Your task to perform on an android device: open app "Grab" (install if not already installed) and enter user name: "interspersion@gmail.com" and password: "aristocrats" Image 0: 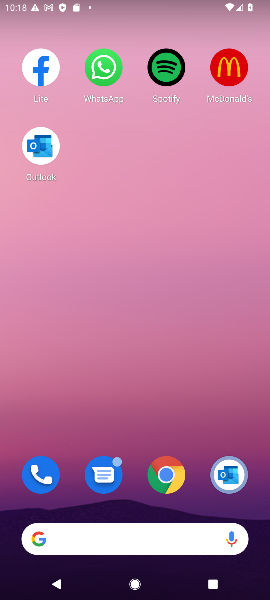
Step 0: drag from (153, 515) to (139, 27)
Your task to perform on an android device: open app "Grab" (install if not already installed) and enter user name: "interspersion@gmail.com" and password: "aristocrats" Image 1: 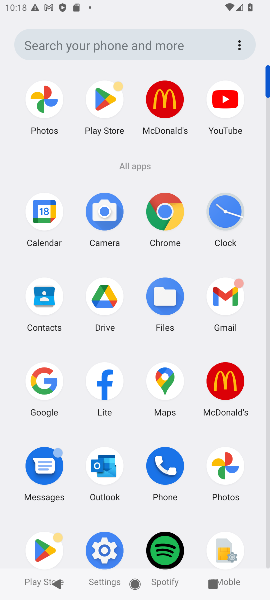
Step 1: click (54, 549)
Your task to perform on an android device: open app "Grab" (install if not already installed) and enter user name: "interspersion@gmail.com" and password: "aristocrats" Image 2: 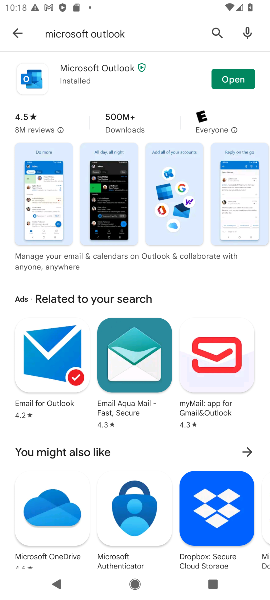
Step 2: click (10, 26)
Your task to perform on an android device: open app "Grab" (install if not already installed) and enter user name: "interspersion@gmail.com" and password: "aristocrats" Image 3: 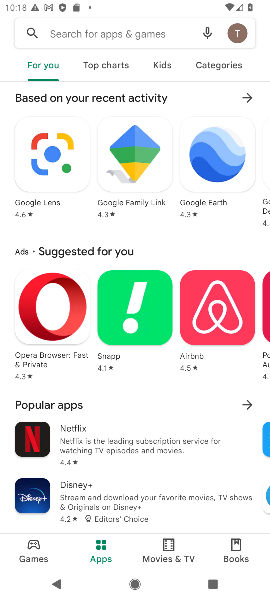
Step 3: click (82, 26)
Your task to perform on an android device: open app "Grab" (install if not already installed) and enter user name: "interspersion@gmail.com" and password: "aristocrats" Image 4: 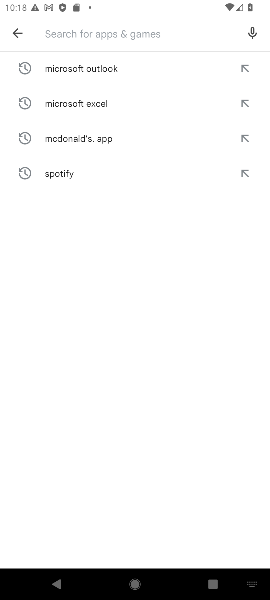
Step 4: type "Grab"
Your task to perform on an android device: open app "Grab" (install if not already installed) and enter user name: "interspersion@gmail.com" and password: "aristocrats" Image 5: 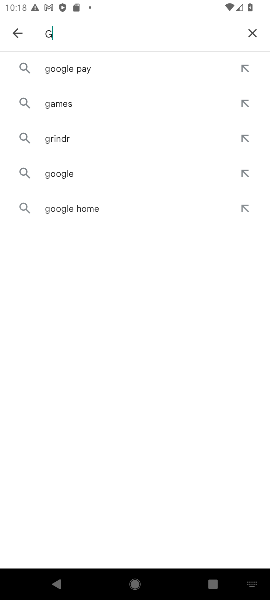
Step 5: type ""
Your task to perform on an android device: open app "Grab" (install if not already installed) and enter user name: "interspersion@gmail.com" and password: "aristocrats" Image 6: 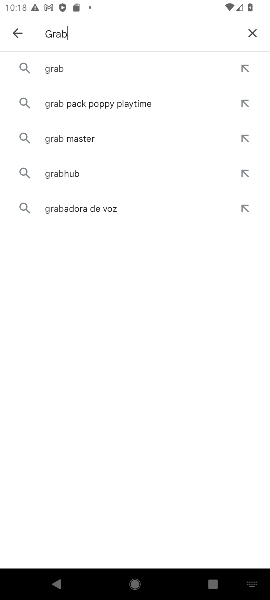
Step 6: click (51, 59)
Your task to perform on an android device: open app "Grab" (install if not already installed) and enter user name: "interspersion@gmail.com" and password: "aristocrats" Image 7: 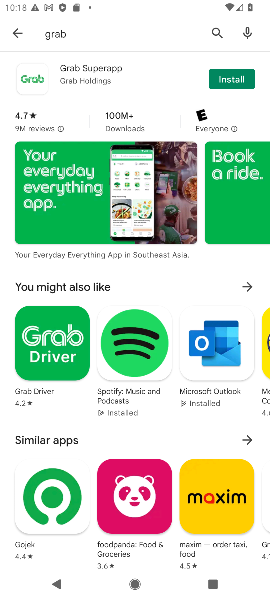
Step 7: click (223, 83)
Your task to perform on an android device: open app "Grab" (install if not already installed) and enter user name: "interspersion@gmail.com" and password: "aristocrats" Image 8: 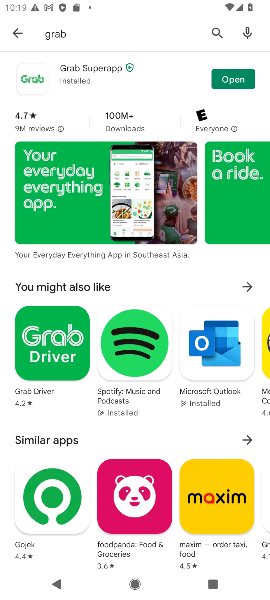
Step 8: click (226, 78)
Your task to perform on an android device: open app "Grab" (install if not already installed) and enter user name: "interspersion@gmail.com" and password: "aristocrats" Image 9: 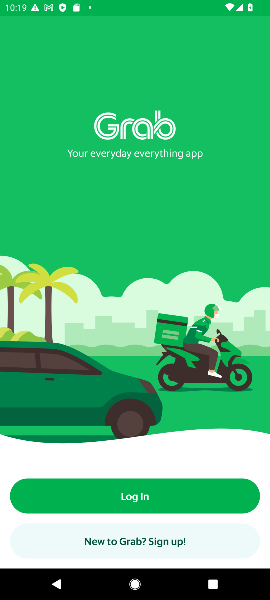
Step 9: click (139, 498)
Your task to perform on an android device: open app "Grab" (install if not already installed) and enter user name: "interspersion@gmail.com" and password: "aristocrats" Image 10: 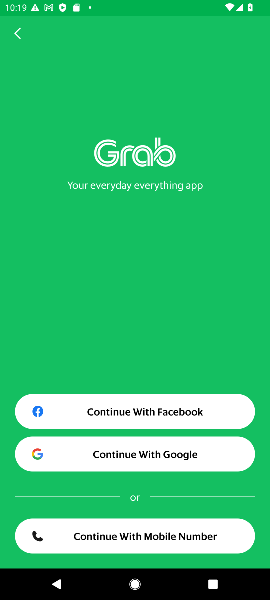
Step 10: task complete